Your task to perform on an android device: Go to Maps Image 0: 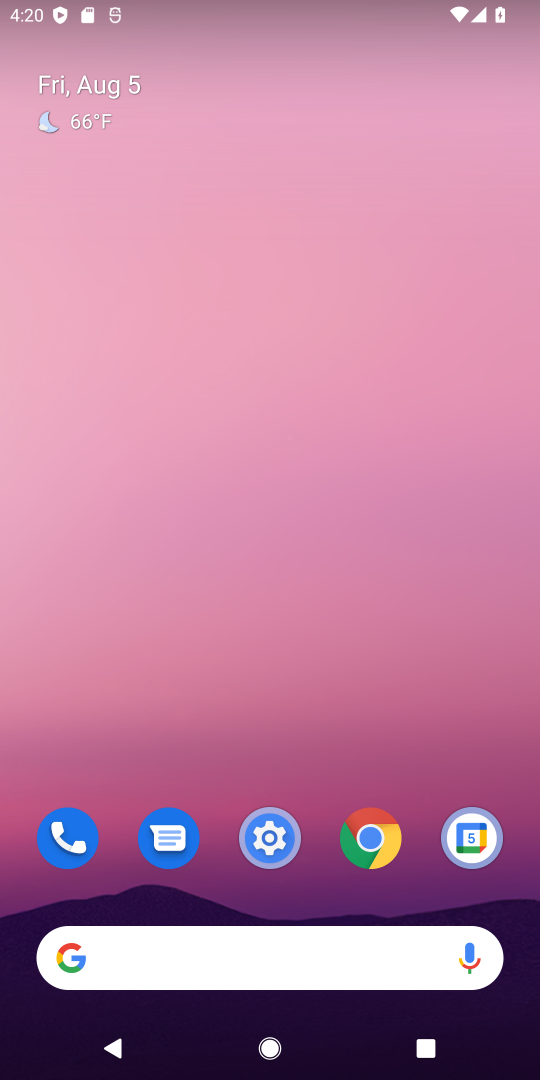
Step 0: drag from (374, 696) to (374, 422)
Your task to perform on an android device: Go to Maps Image 1: 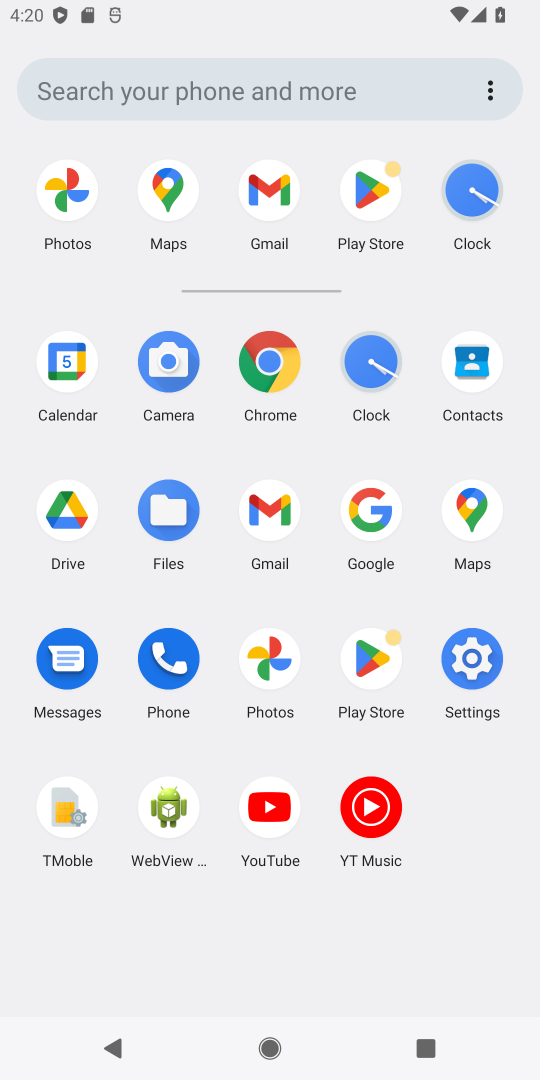
Step 1: click (483, 497)
Your task to perform on an android device: Go to Maps Image 2: 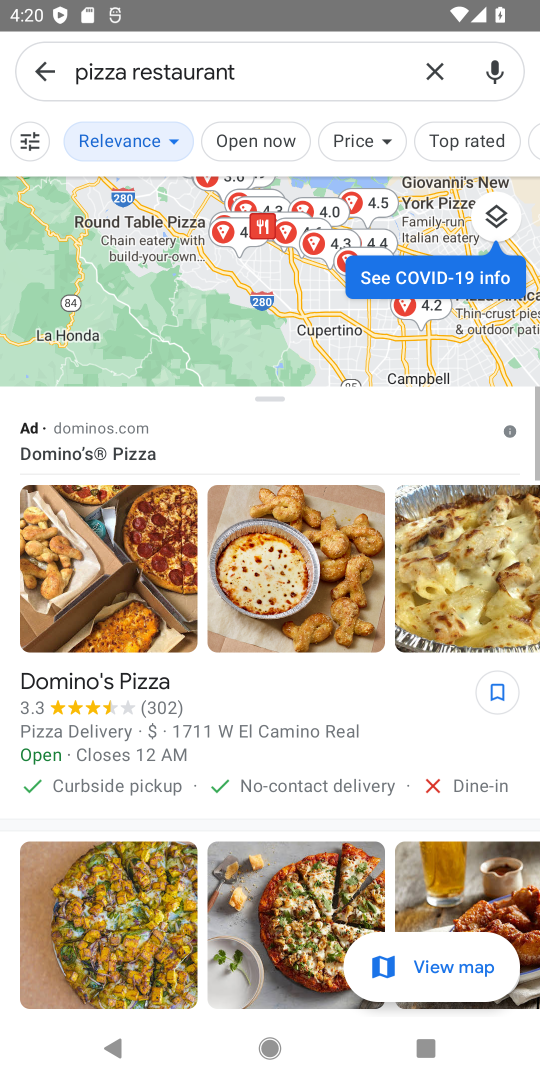
Step 2: click (451, 69)
Your task to perform on an android device: Go to Maps Image 3: 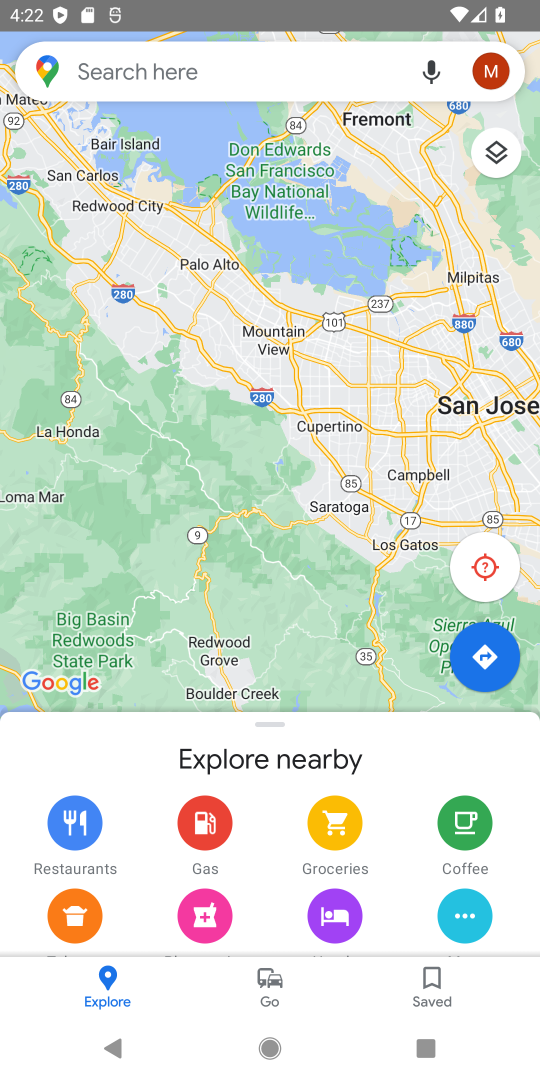
Step 3: task complete